Your task to perform on an android device: What is the news today? Image 0: 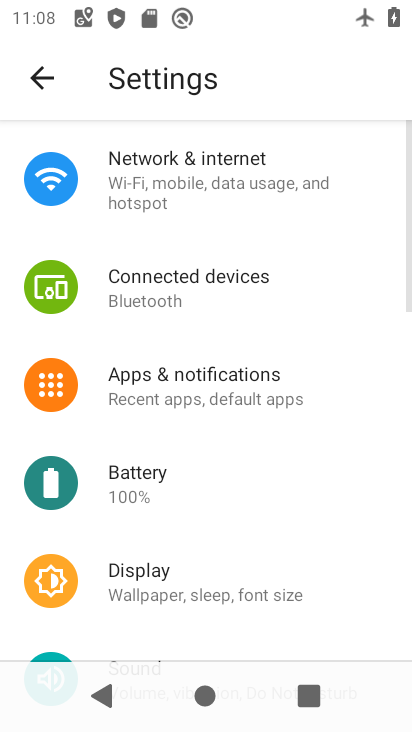
Step 0: press home button
Your task to perform on an android device: What is the news today? Image 1: 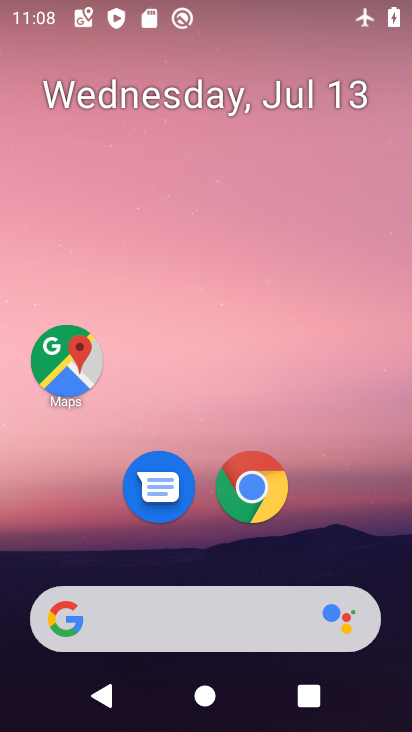
Step 1: click (238, 635)
Your task to perform on an android device: What is the news today? Image 2: 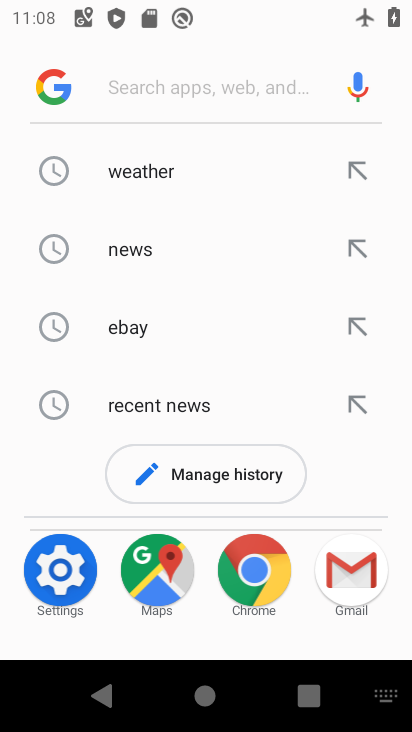
Step 2: click (139, 249)
Your task to perform on an android device: What is the news today? Image 3: 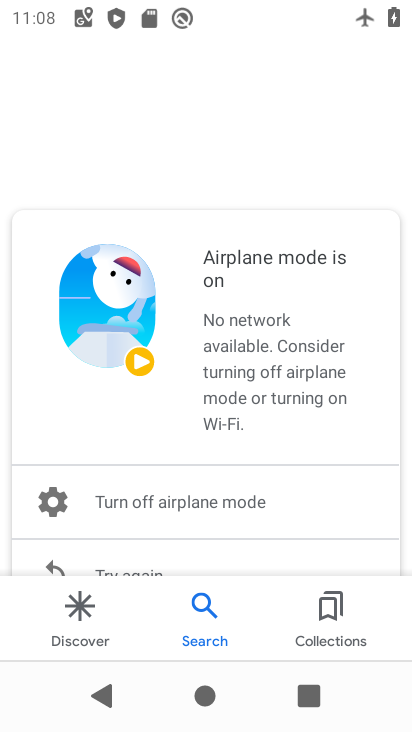
Step 3: task complete